Your task to perform on an android device: check android version Image 0: 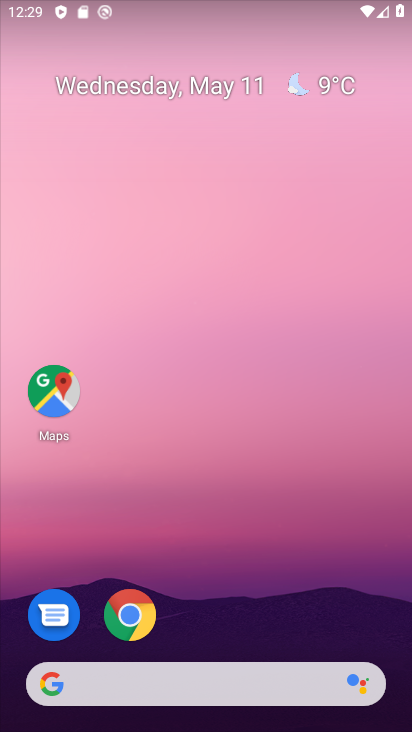
Step 0: drag from (204, 596) to (366, 147)
Your task to perform on an android device: check android version Image 1: 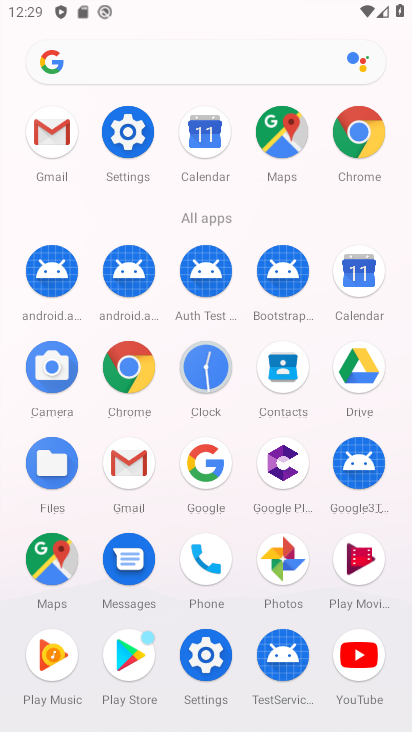
Step 1: click (136, 143)
Your task to perform on an android device: check android version Image 2: 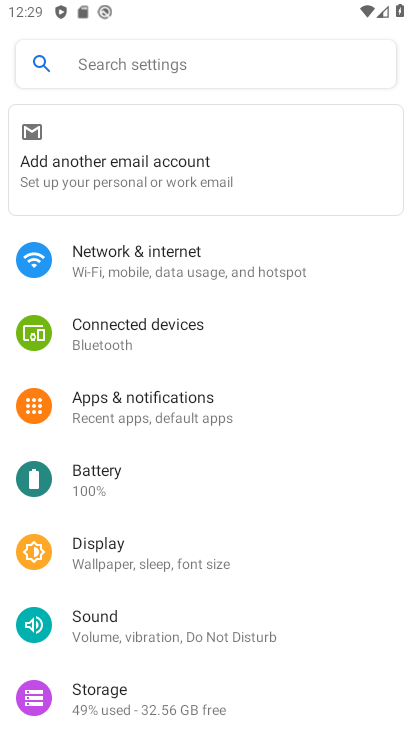
Step 2: drag from (233, 642) to (390, 278)
Your task to perform on an android device: check android version Image 3: 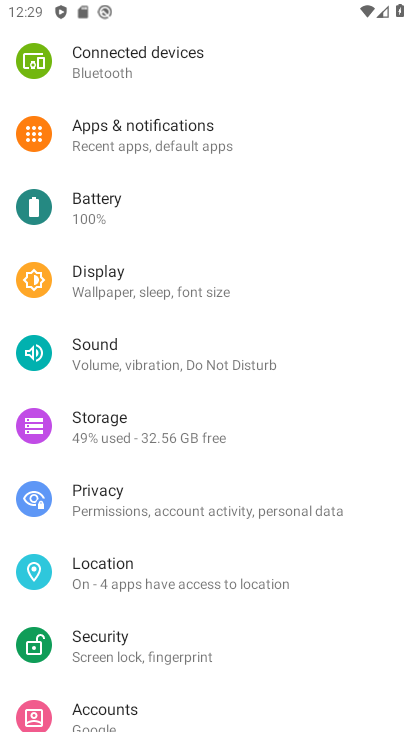
Step 3: drag from (206, 702) to (275, 225)
Your task to perform on an android device: check android version Image 4: 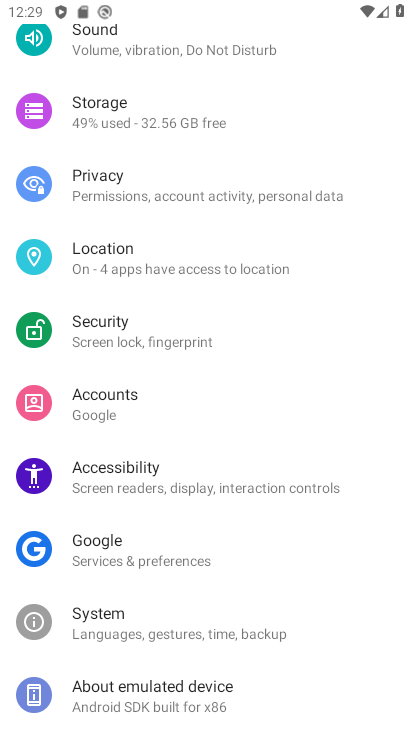
Step 4: click (218, 680)
Your task to perform on an android device: check android version Image 5: 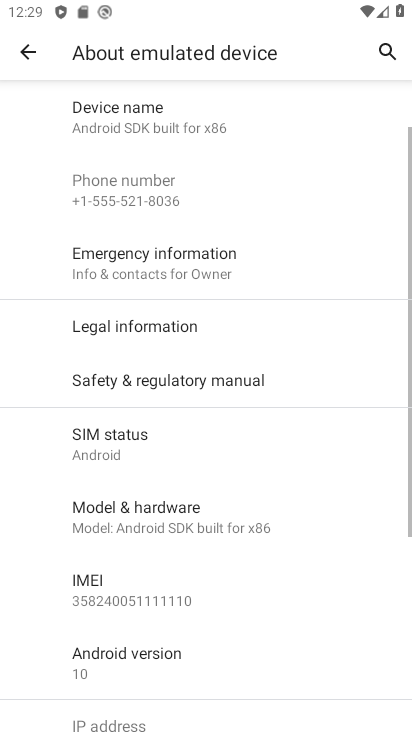
Step 5: task complete